Your task to perform on an android device: see sites visited before in the chrome app Image 0: 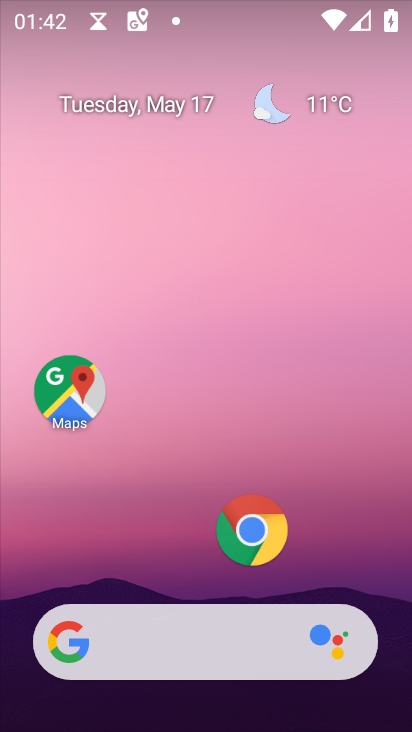
Step 0: click (250, 526)
Your task to perform on an android device: see sites visited before in the chrome app Image 1: 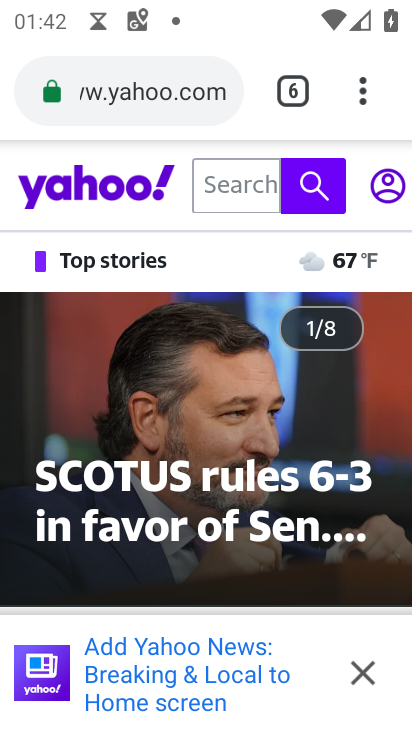
Step 1: click (359, 97)
Your task to perform on an android device: see sites visited before in the chrome app Image 2: 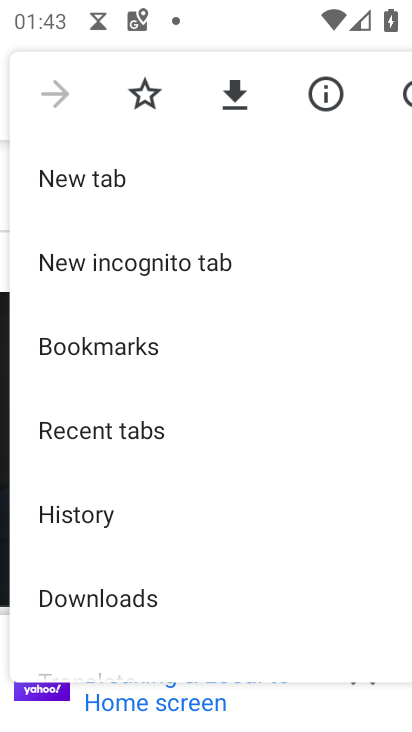
Step 2: drag from (305, 614) to (359, 293)
Your task to perform on an android device: see sites visited before in the chrome app Image 3: 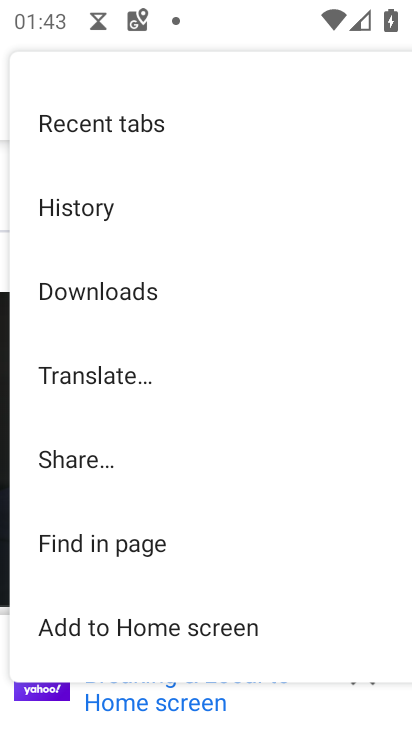
Step 3: drag from (269, 550) to (322, 91)
Your task to perform on an android device: see sites visited before in the chrome app Image 4: 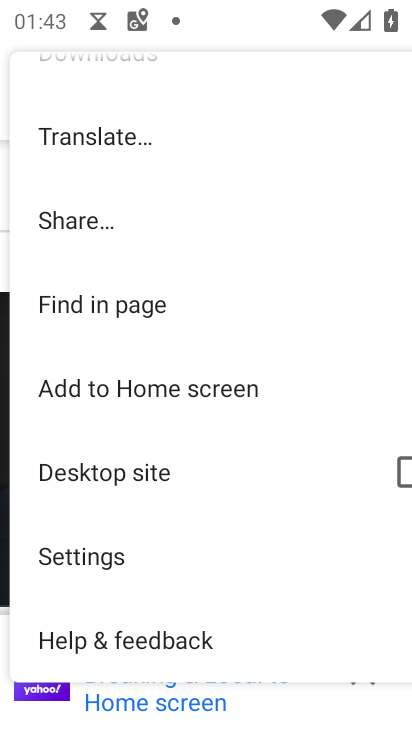
Step 4: drag from (239, 522) to (277, 181)
Your task to perform on an android device: see sites visited before in the chrome app Image 5: 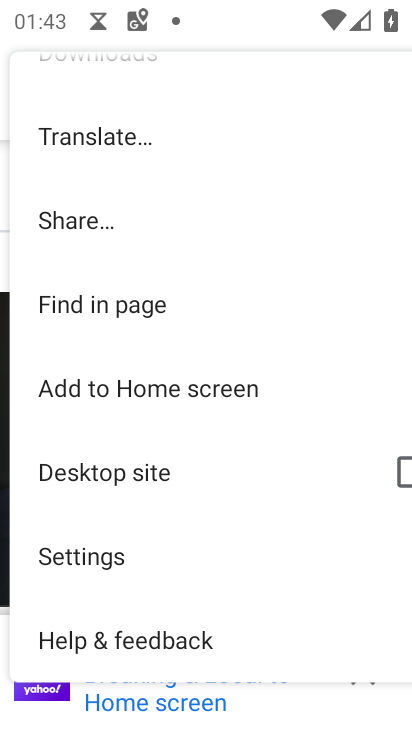
Step 5: click (137, 570)
Your task to perform on an android device: see sites visited before in the chrome app Image 6: 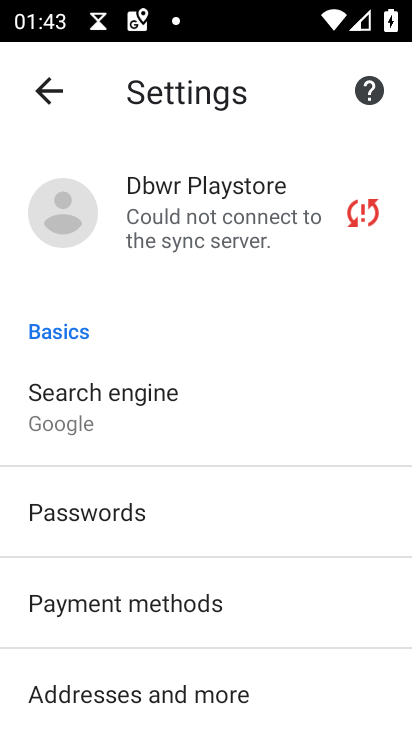
Step 6: drag from (244, 613) to (312, 69)
Your task to perform on an android device: see sites visited before in the chrome app Image 7: 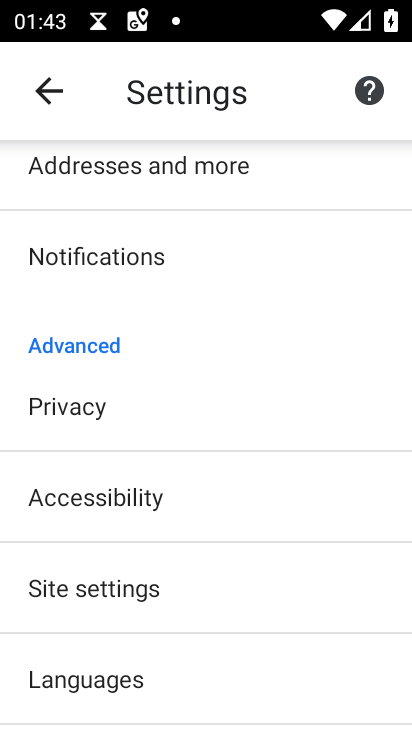
Step 7: click (179, 593)
Your task to perform on an android device: see sites visited before in the chrome app Image 8: 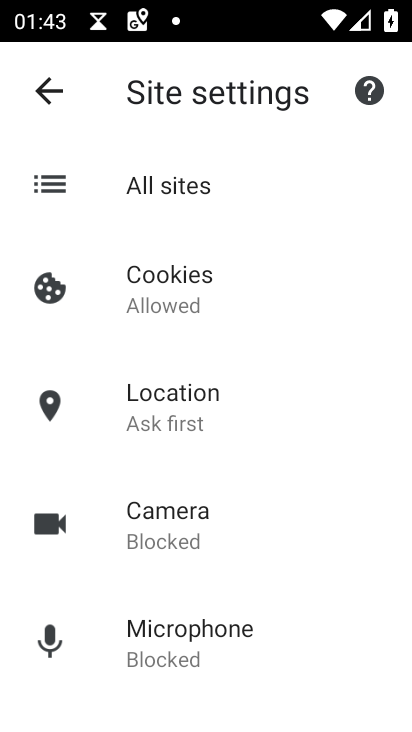
Step 8: drag from (286, 589) to (357, 2)
Your task to perform on an android device: see sites visited before in the chrome app Image 9: 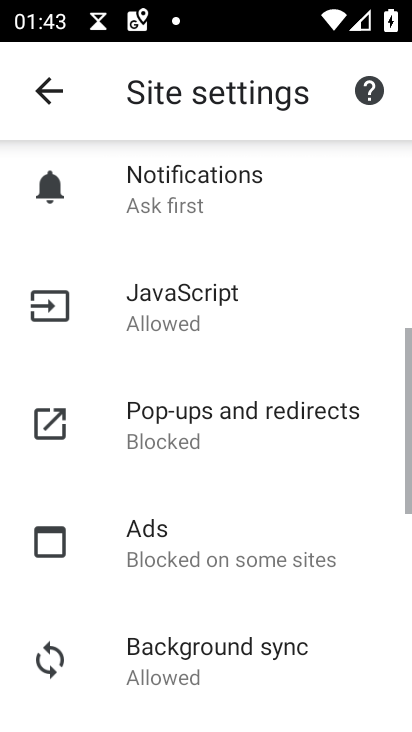
Step 9: drag from (277, 551) to (285, 183)
Your task to perform on an android device: see sites visited before in the chrome app Image 10: 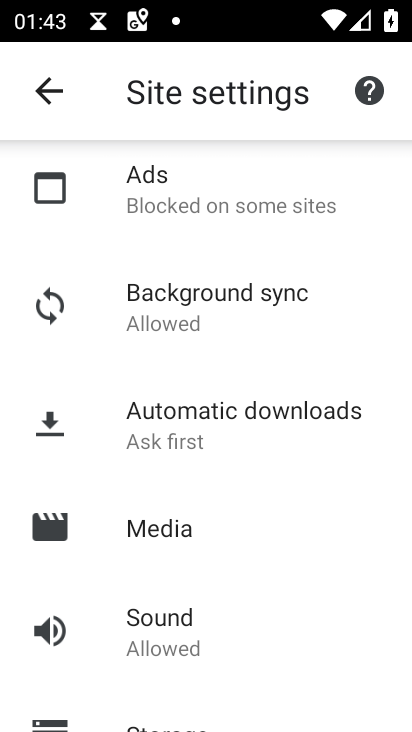
Step 10: drag from (210, 574) to (290, 93)
Your task to perform on an android device: see sites visited before in the chrome app Image 11: 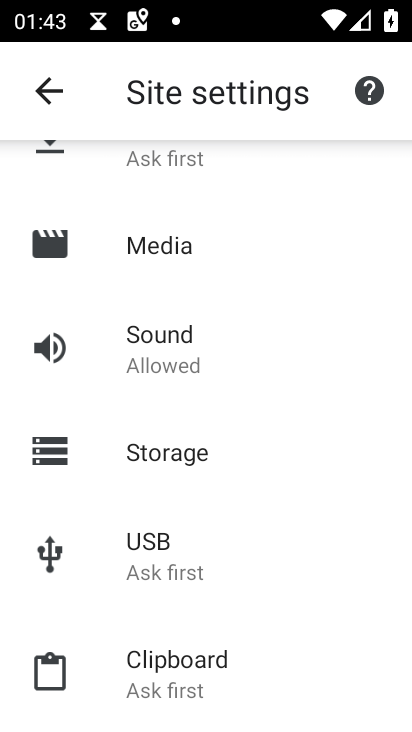
Step 11: drag from (213, 577) to (295, 153)
Your task to perform on an android device: see sites visited before in the chrome app Image 12: 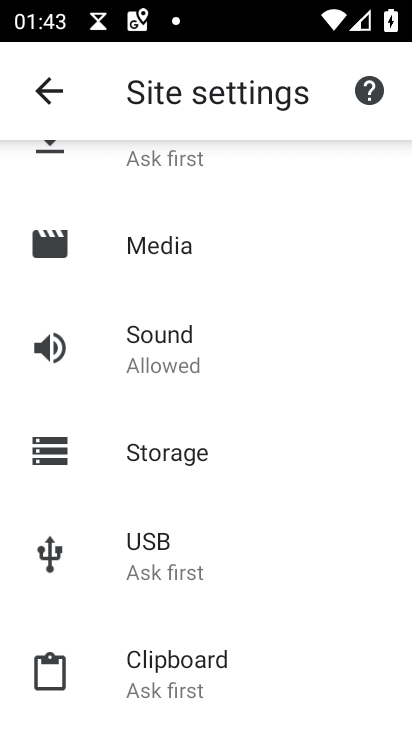
Step 12: press back button
Your task to perform on an android device: see sites visited before in the chrome app Image 13: 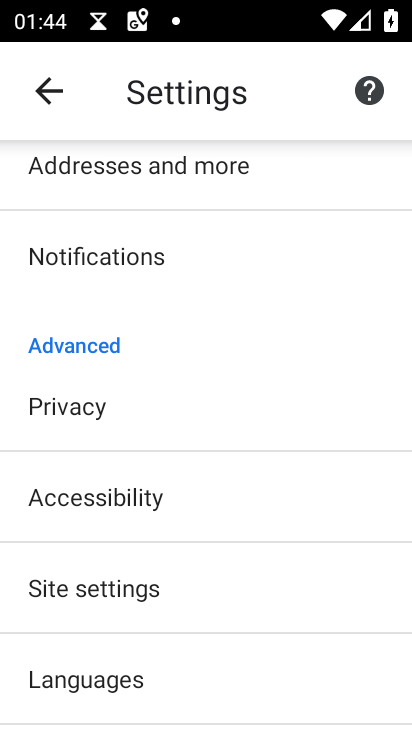
Step 13: click (166, 487)
Your task to perform on an android device: see sites visited before in the chrome app Image 14: 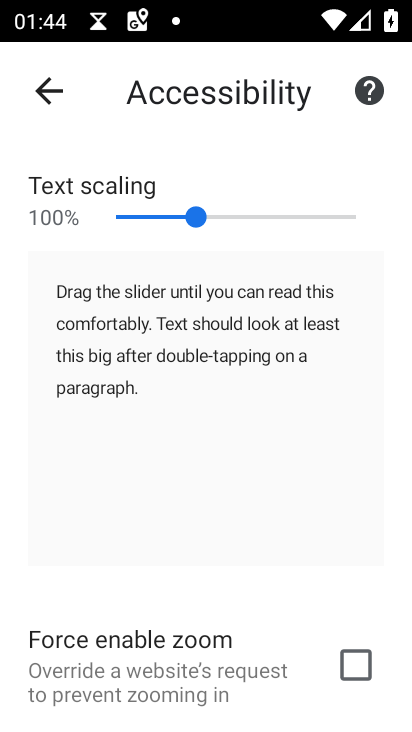
Step 14: press back button
Your task to perform on an android device: see sites visited before in the chrome app Image 15: 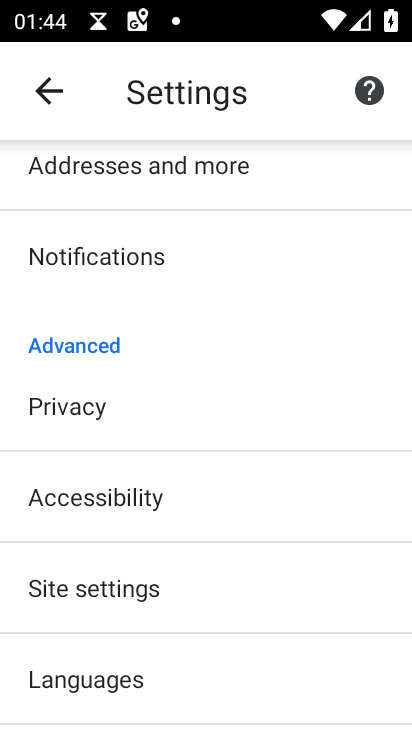
Step 15: click (140, 427)
Your task to perform on an android device: see sites visited before in the chrome app Image 16: 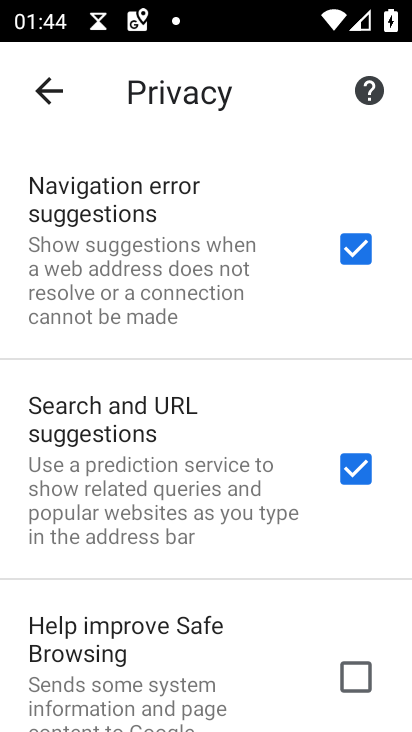
Step 16: press back button
Your task to perform on an android device: see sites visited before in the chrome app Image 17: 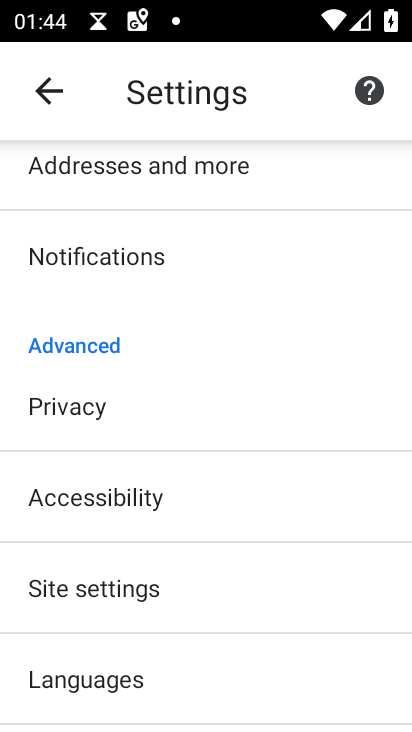
Step 17: drag from (258, 664) to (340, 215)
Your task to perform on an android device: see sites visited before in the chrome app Image 18: 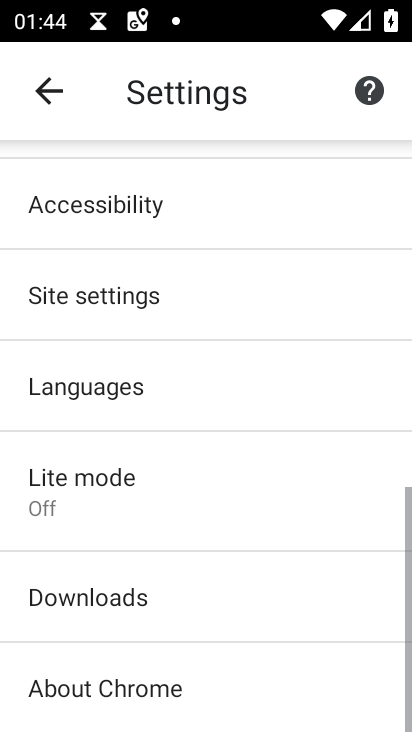
Step 18: drag from (270, 630) to (303, 91)
Your task to perform on an android device: see sites visited before in the chrome app Image 19: 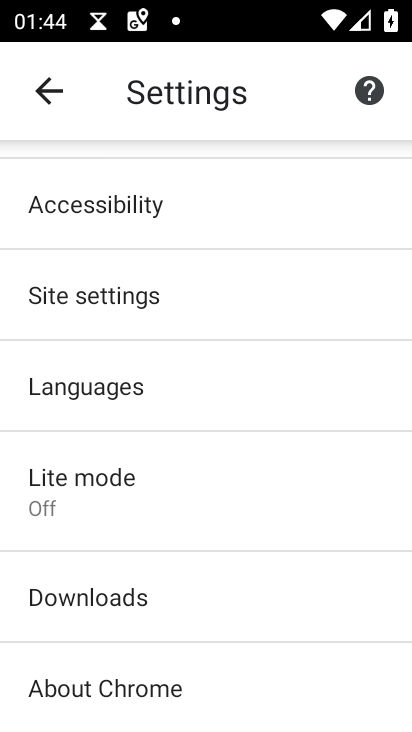
Step 19: click (223, 675)
Your task to perform on an android device: see sites visited before in the chrome app Image 20: 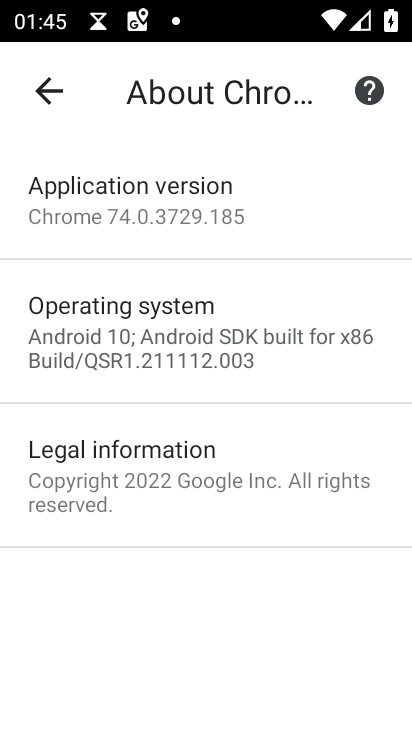
Step 20: press back button
Your task to perform on an android device: see sites visited before in the chrome app Image 21: 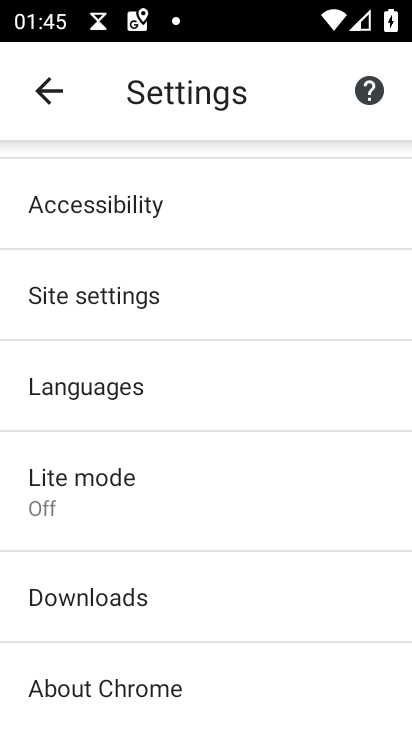
Step 21: click (128, 292)
Your task to perform on an android device: see sites visited before in the chrome app Image 22: 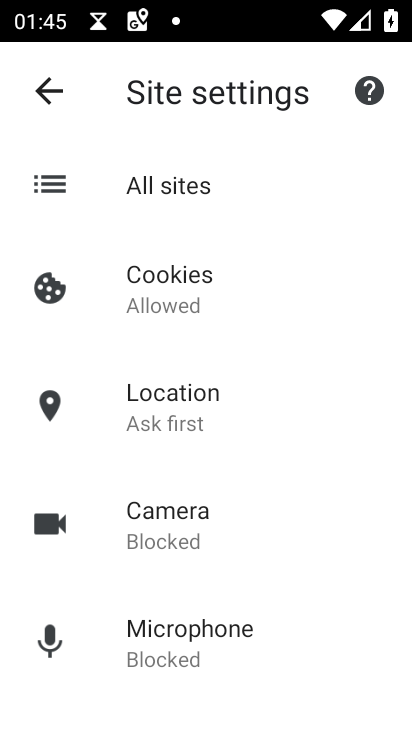
Step 22: drag from (290, 669) to (251, 295)
Your task to perform on an android device: see sites visited before in the chrome app Image 23: 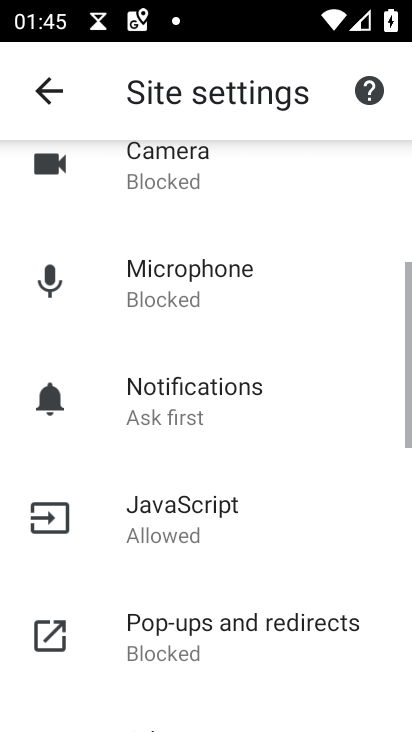
Step 23: drag from (285, 516) to (282, 361)
Your task to perform on an android device: see sites visited before in the chrome app Image 24: 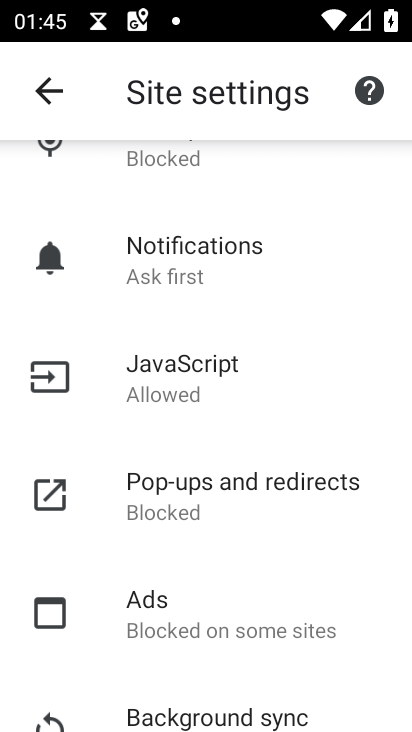
Step 24: drag from (293, 569) to (274, 279)
Your task to perform on an android device: see sites visited before in the chrome app Image 25: 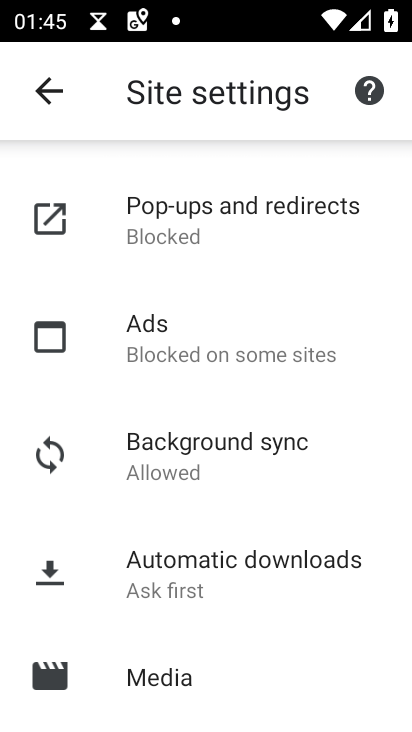
Step 25: press back button
Your task to perform on an android device: see sites visited before in the chrome app Image 26: 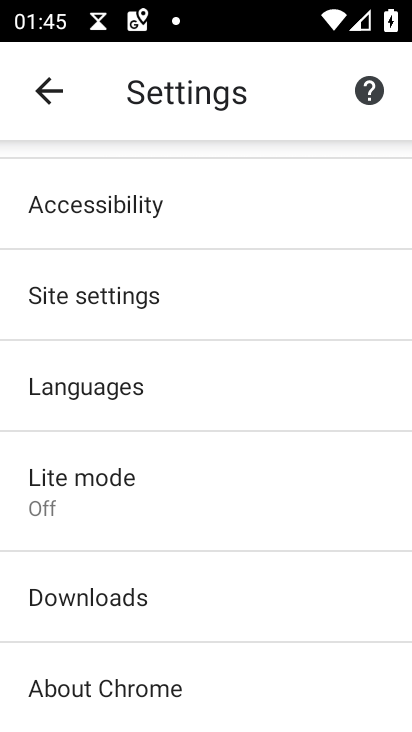
Step 26: press back button
Your task to perform on an android device: see sites visited before in the chrome app Image 27: 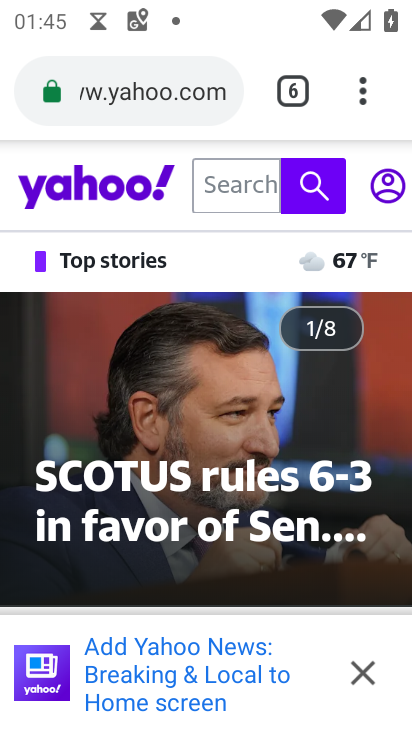
Step 27: click (350, 90)
Your task to perform on an android device: see sites visited before in the chrome app Image 28: 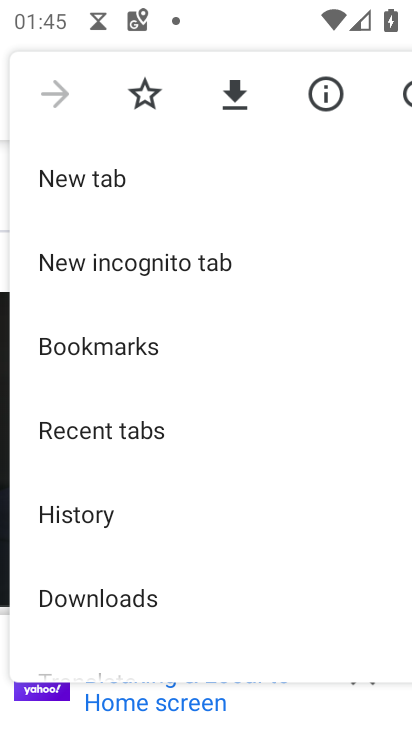
Step 28: click (155, 429)
Your task to perform on an android device: see sites visited before in the chrome app Image 29: 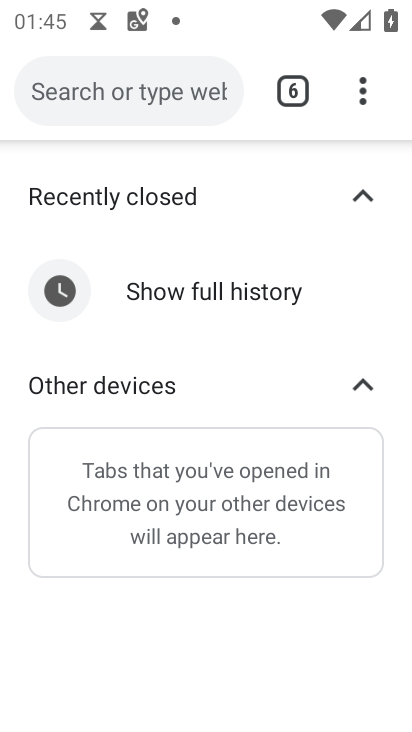
Step 29: click (355, 205)
Your task to perform on an android device: see sites visited before in the chrome app Image 30: 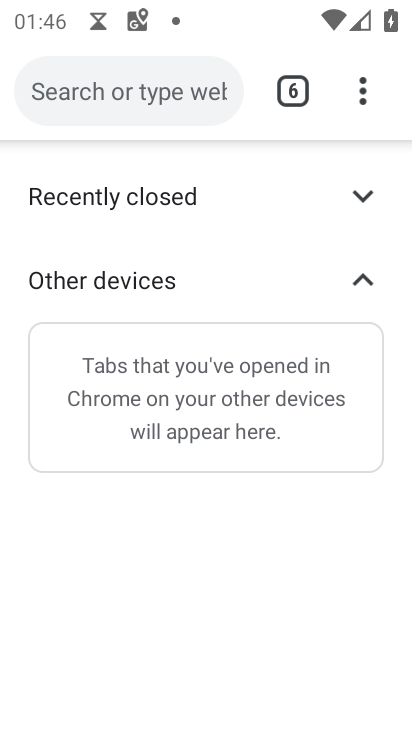
Step 30: click (353, 276)
Your task to perform on an android device: see sites visited before in the chrome app Image 31: 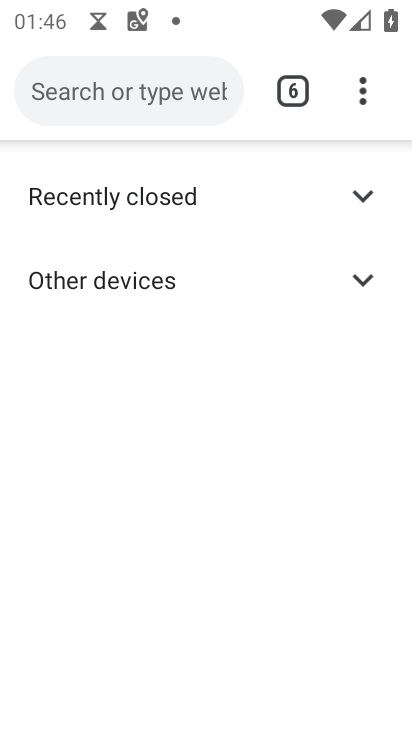
Step 31: click (353, 274)
Your task to perform on an android device: see sites visited before in the chrome app Image 32: 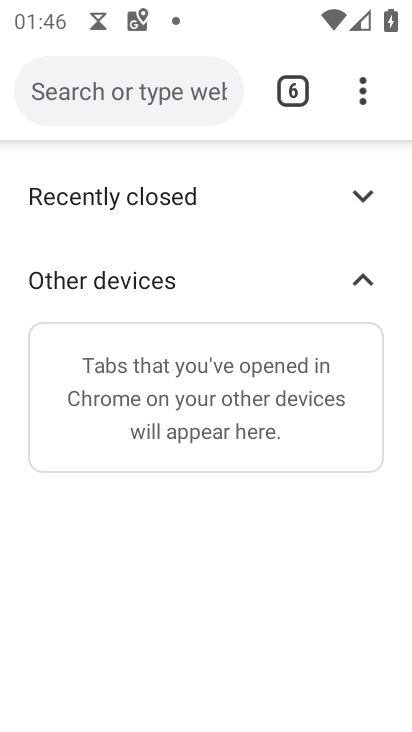
Step 32: click (359, 180)
Your task to perform on an android device: see sites visited before in the chrome app Image 33: 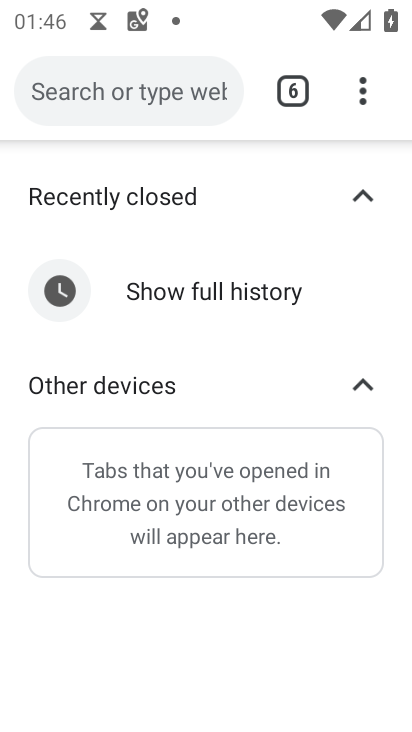
Step 33: click (352, 94)
Your task to perform on an android device: see sites visited before in the chrome app Image 34: 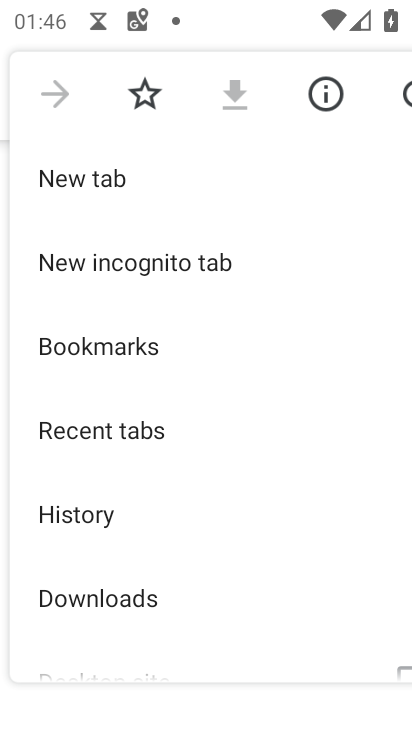
Step 34: task complete